Your task to perform on an android device: turn on priority inbox in the gmail app Image 0: 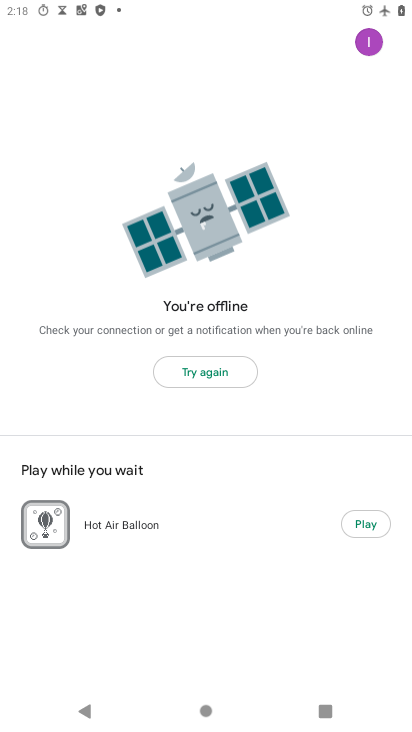
Step 0: press home button
Your task to perform on an android device: turn on priority inbox in the gmail app Image 1: 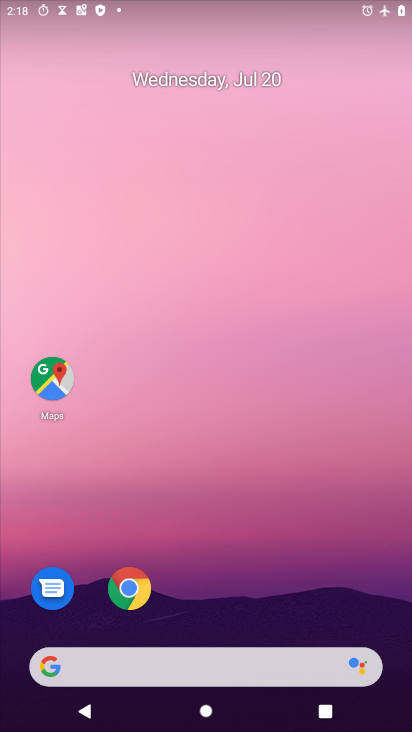
Step 1: drag from (99, 518) to (231, 8)
Your task to perform on an android device: turn on priority inbox in the gmail app Image 2: 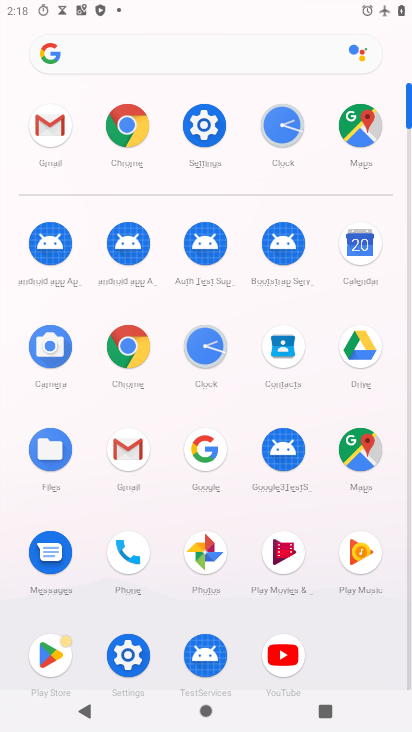
Step 2: click (132, 445)
Your task to perform on an android device: turn on priority inbox in the gmail app Image 3: 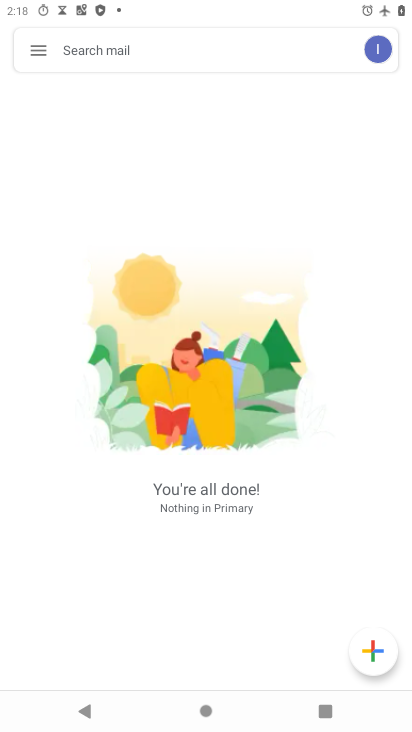
Step 3: click (42, 52)
Your task to perform on an android device: turn on priority inbox in the gmail app Image 4: 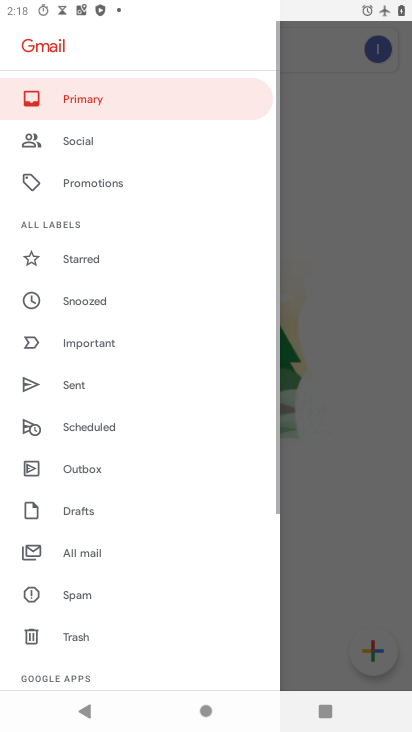
Step 4: drag from (160, 370) to (170, 8)
Your task to perform on an android device: turn on priority inbox in the gmail app Image 5: 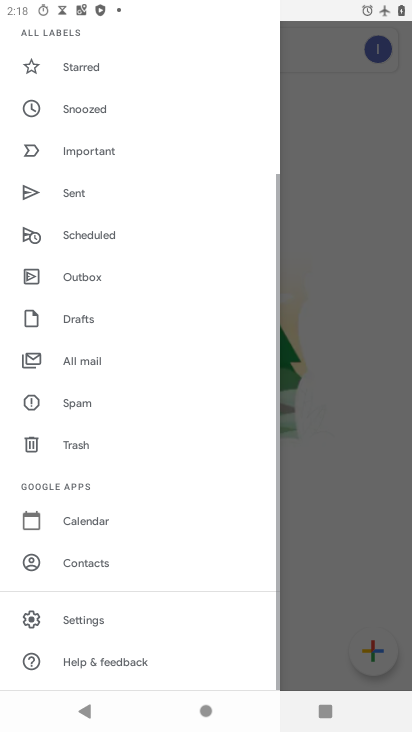
Step 5: click (115, 630)
Your task to perform on an android device: turn on priority inbox in the gmail app Image 6: 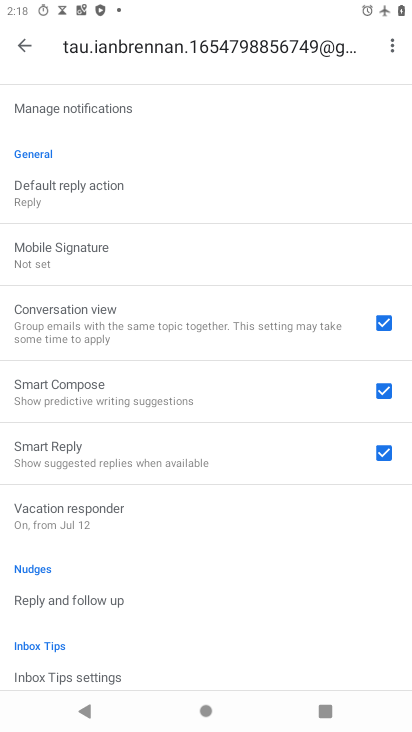
Step 6: drag from (192, 160) to (155, 588)
Your task to perform on an android device: turn on priority inbox in the gmail app Image 7: 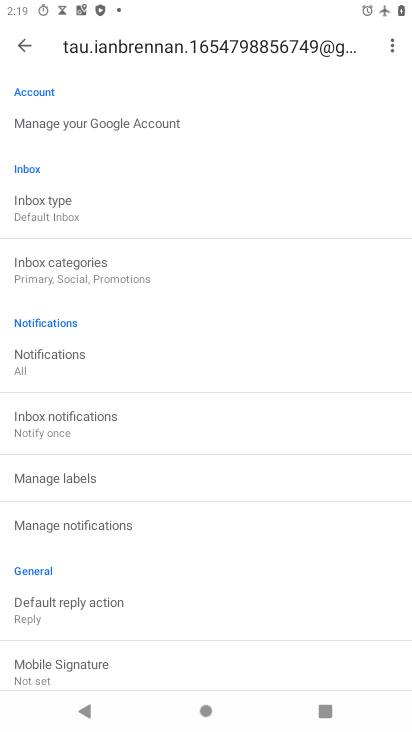
Step 7: click (71, 204)
Your task to perform on an android device: turn on priority inbox in the gmail app Image 8: 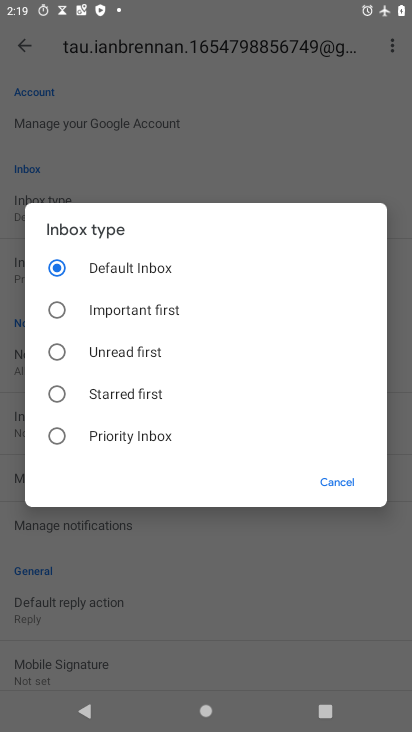
Step 8: click (57, 434)
Your task to perform on an android device: turn on priority inbox in the gmail app Image 9: 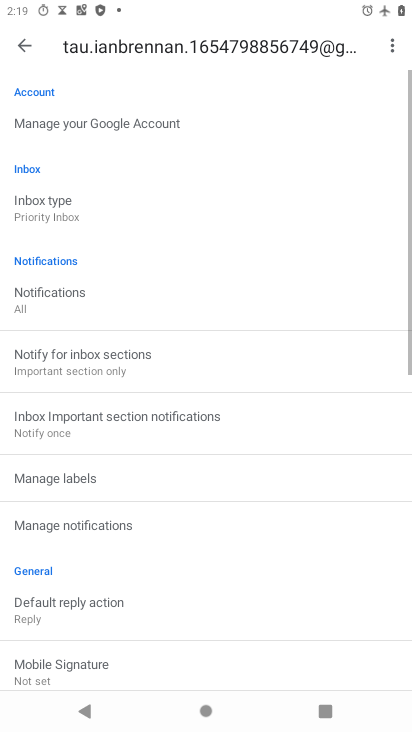
Step 9: task complete